Your task to perform on an android device: Open privacy settings Image 0: 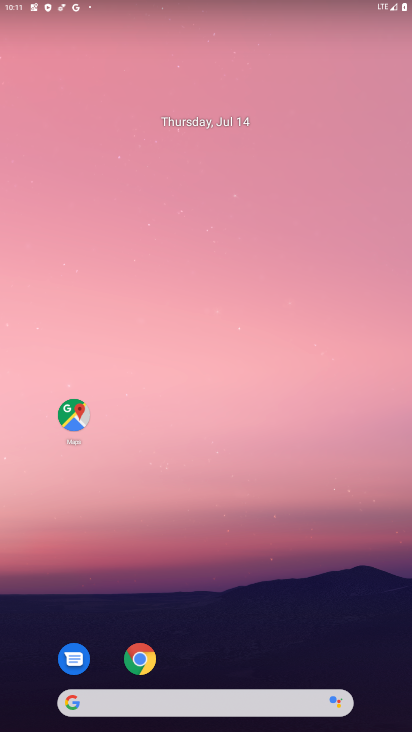
Step 0: drag from (290, 605) to (235, 167)
Your task to perform on an android device: Open privacy settings Image 1: 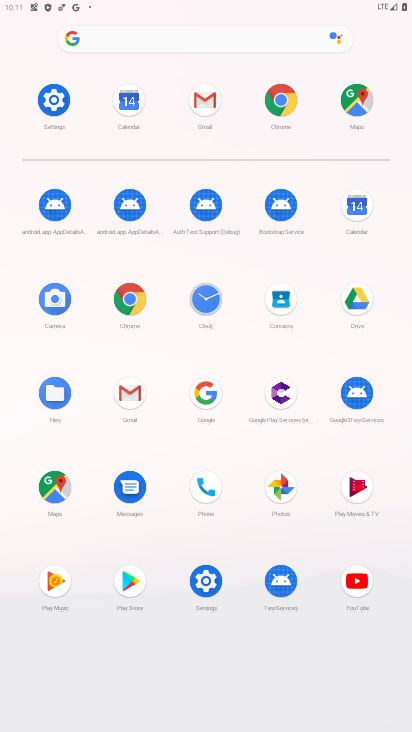
Step 1: click (54, 98)
Your task to perform on an android device: Open privacy settings Image 2: 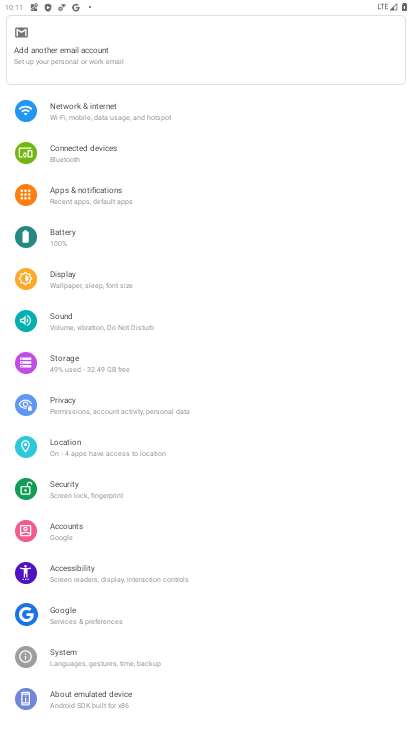
Step 2: click (123, 409)
Your task to perform on an android device: Open privacy settings Image 3: 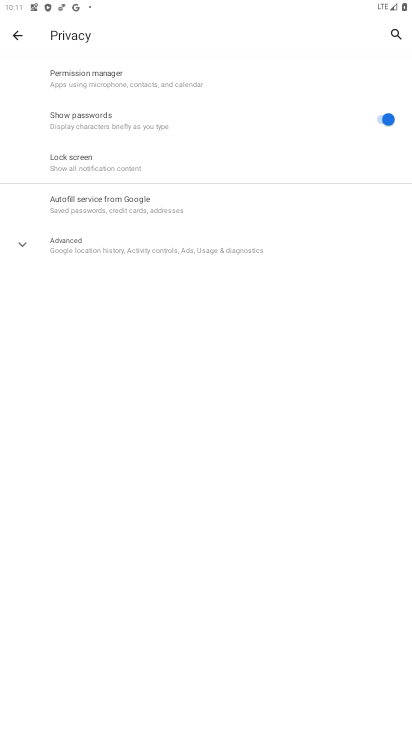
Step 3: task complete